Your task to perform on an android device: toggle translation in the chrome app Image 0: 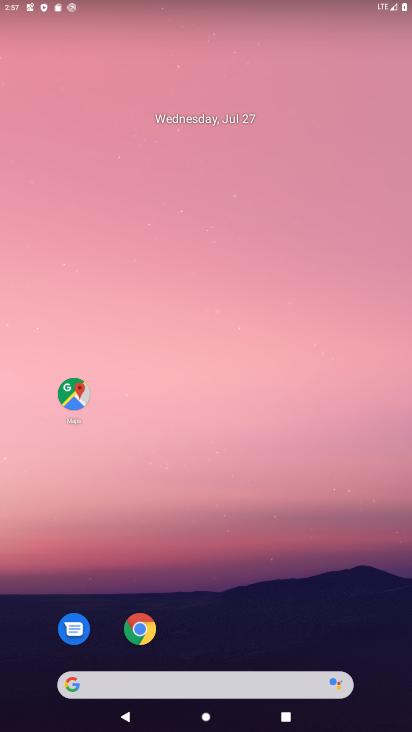
Step 0: click (132, 624)
Your task to perform on an android device: toggle translation in the chrome app Image 1: 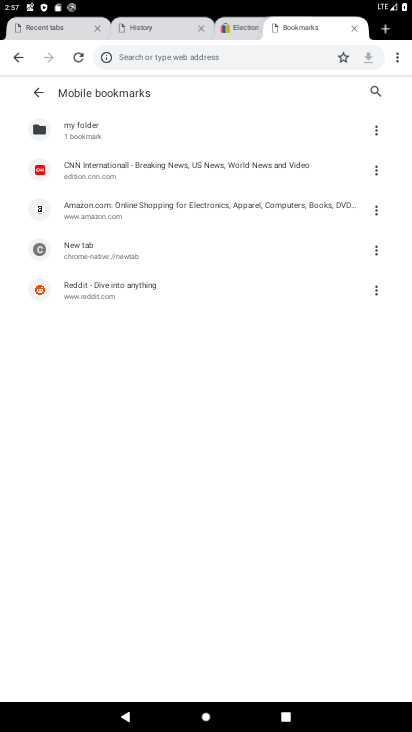
Step 1: click (403, 50)
Your task to perform on an android device: toggle translation in the chrome app Image 2: 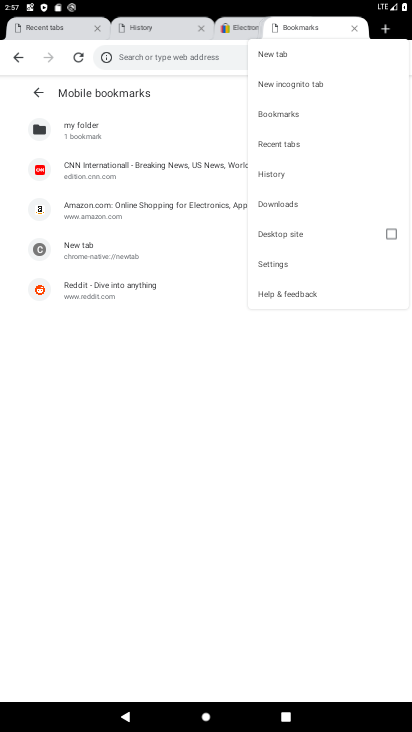
Step 2: click (297, 261)
Your task to perform on an android device: toggle translation in the chrome app Image 3: 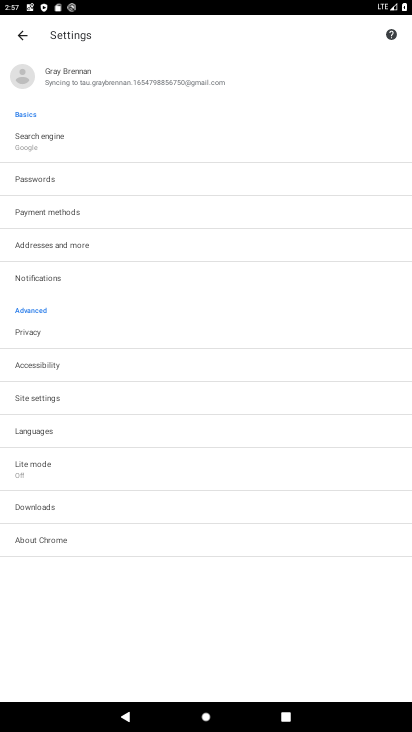
Step 3: click (70, 439)
Your task to perform on an android device: toggle translation in the chrome app Image 4: 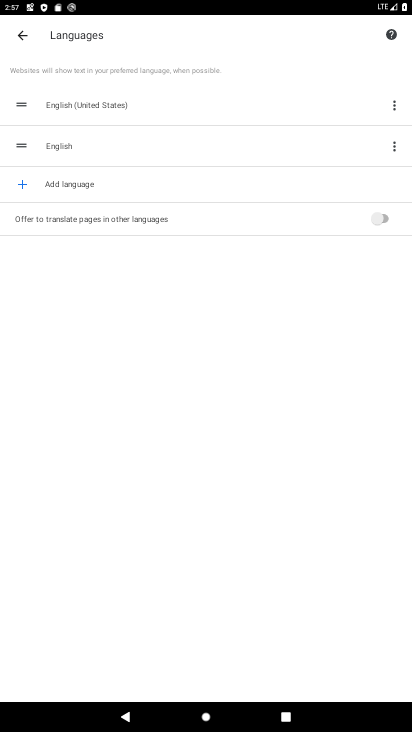
Step 4: click (387, 219)
Your task to perform on an android device: toggle translation in the chrome app Image 5: 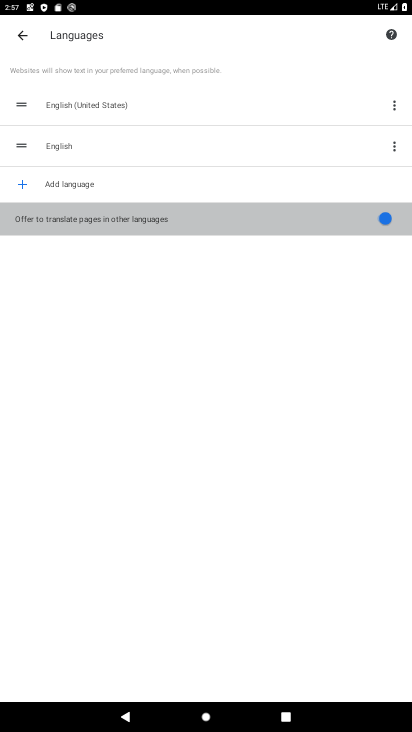
Step 5: click (387, 219)
Your task to perform on an android device: toggle translation in the chrome app Image 6: 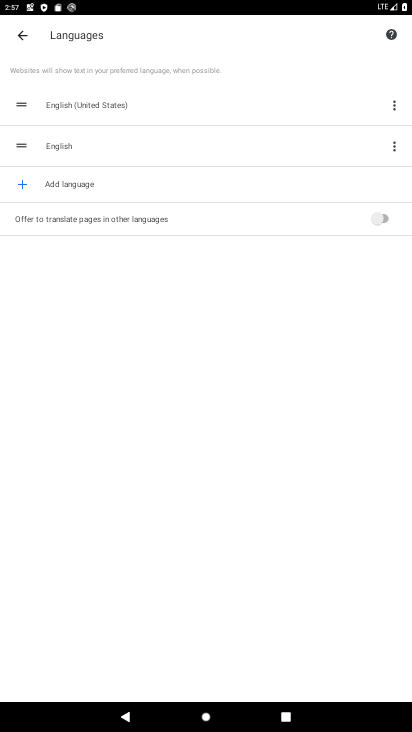
Step 6: click (387, 219)
Your task to perform on an android device: toggle translation in the chrome app Image 7: 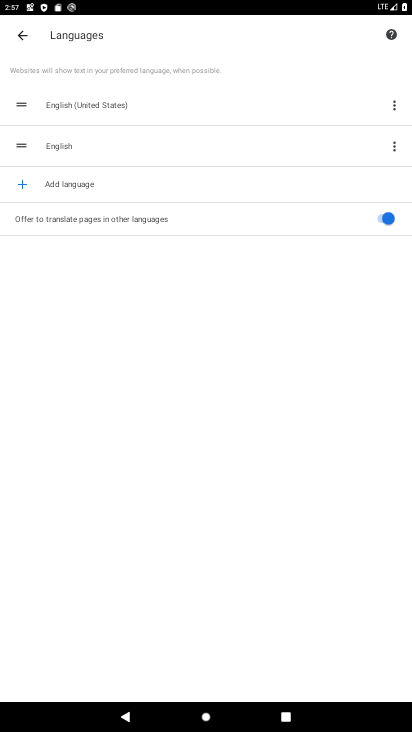
Step 7: click (387, 219)
Your task to perform on an android device: toggle translation in the chrome app Image 8: 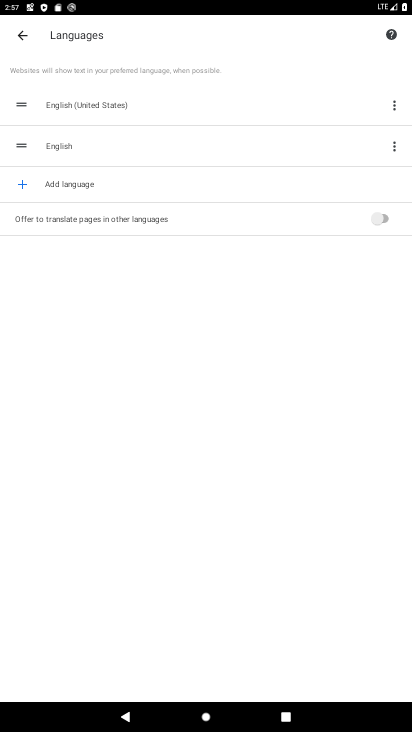
Step 8: task complete